Your task to perform on an android device: Go to CNN.com Image 0: 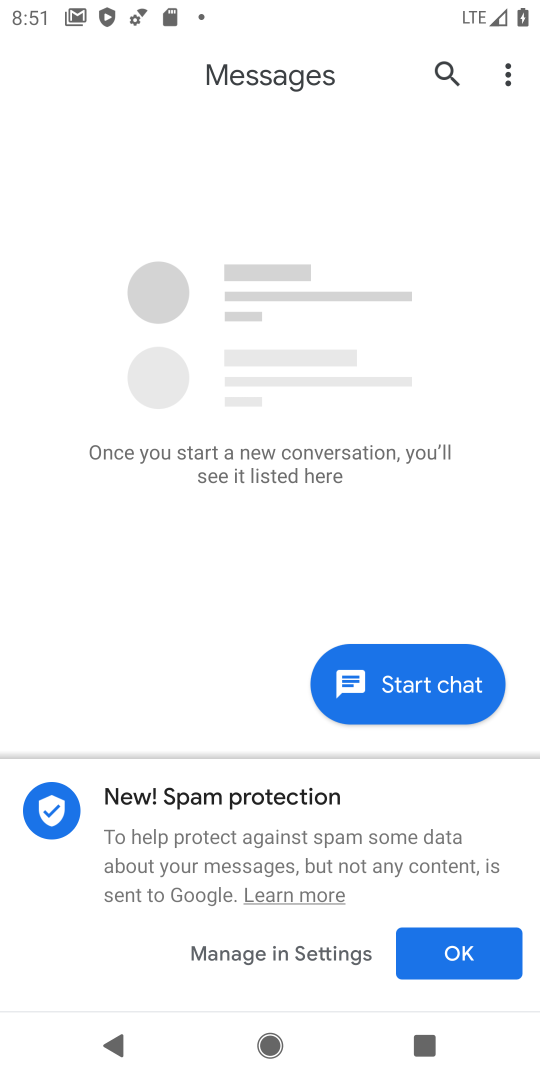
Step 0: press home button
Your task to perform on an android device: Go to CNN.com Image 1: 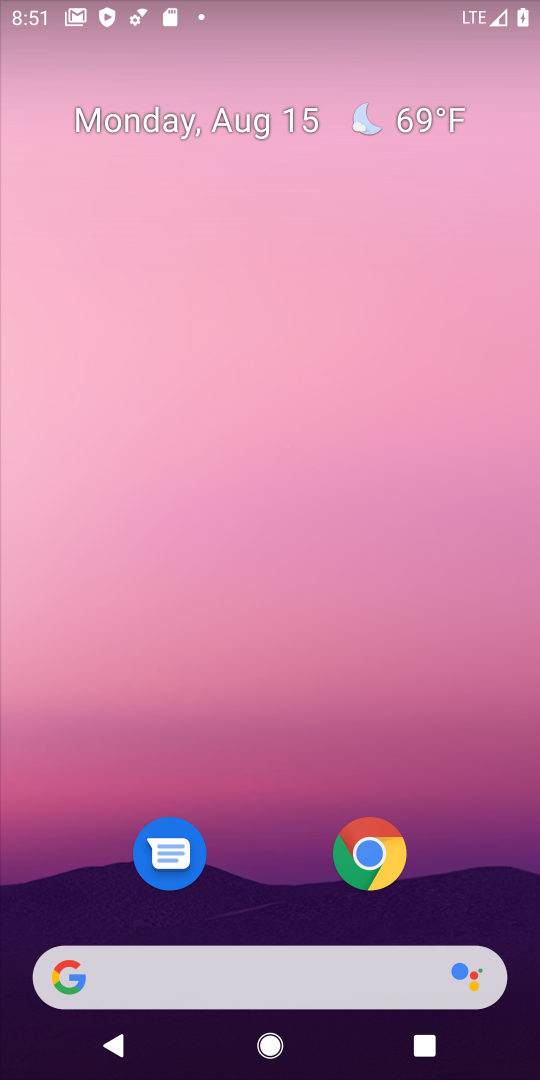
Step 1: drag from (303, 460) to (399, 4)
Your task to perform on an android device: Go to CNN.com Image 2: 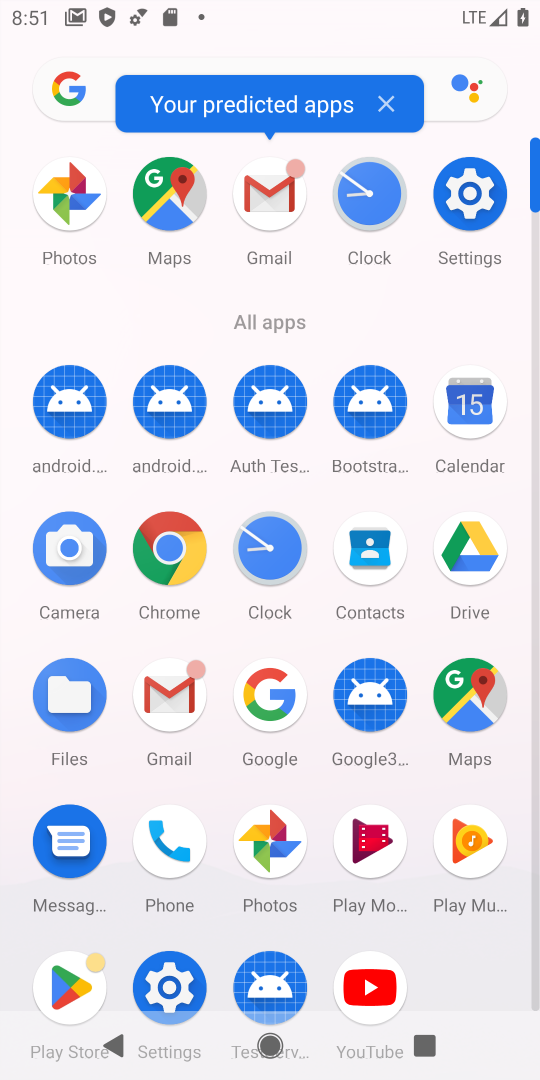
Step 2: click (169, 528)
Your task to perform on an android device: Go to CNN.com Image 3: 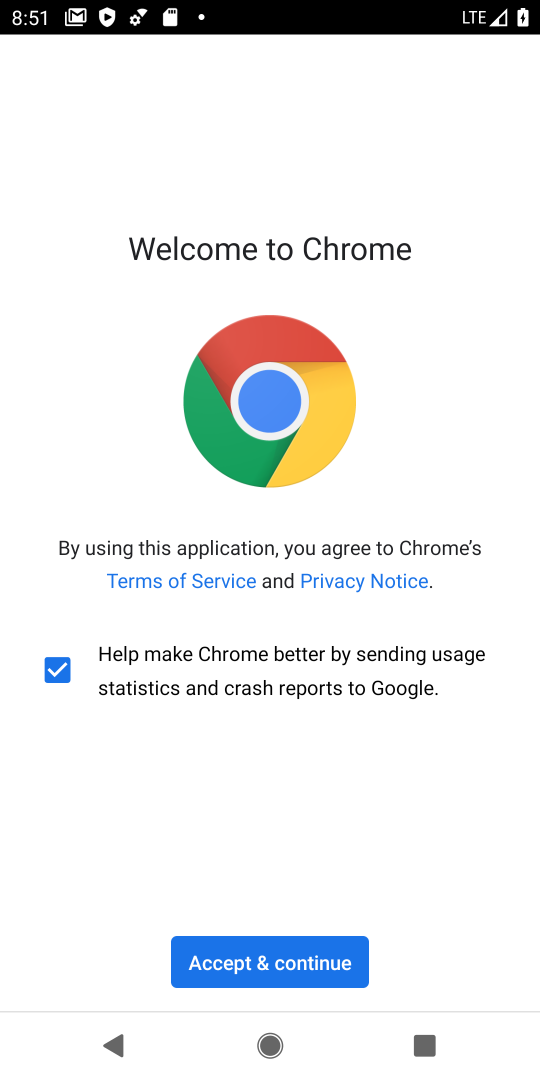
Step 3: click (313, 951)
Your task to perform on an android device: Go to CNN.com Image 4: 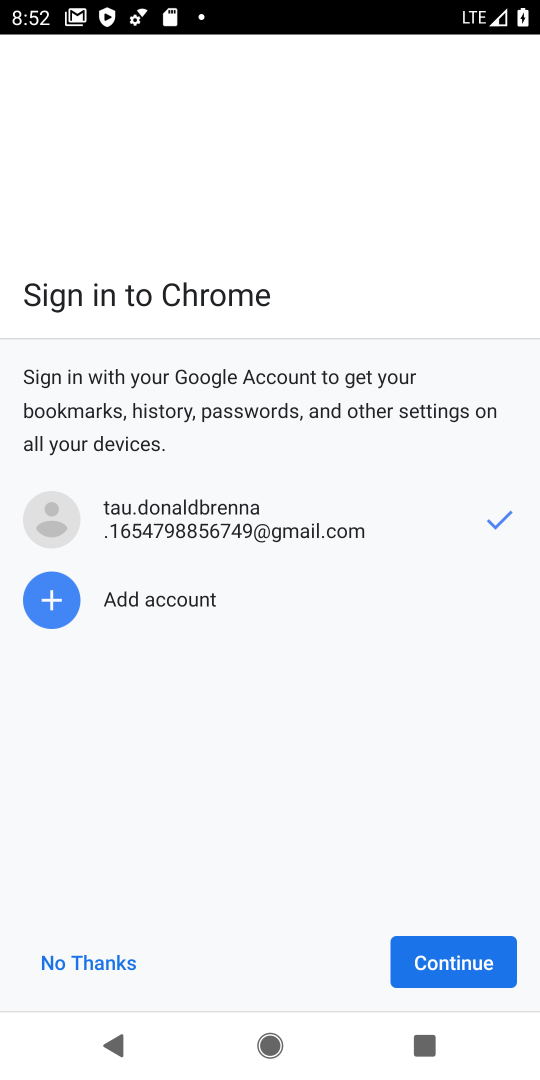
Step 4: click (436, 949)
Your task to perform on an android device: Go to CNN.com Image 5: 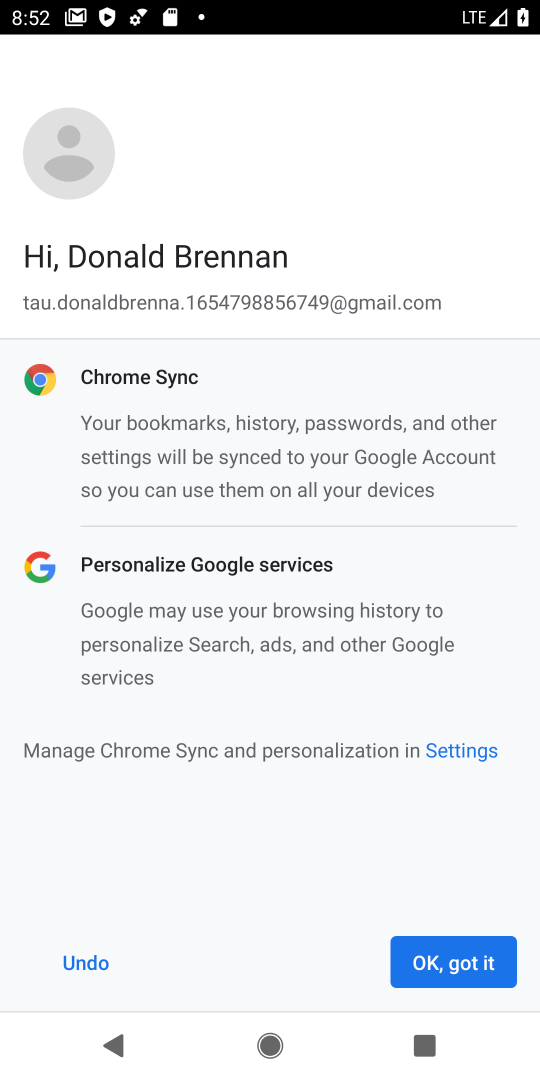
Step 5: click (436, 949)
Your task to perform on an android device: Go to CNN.com Image 6: 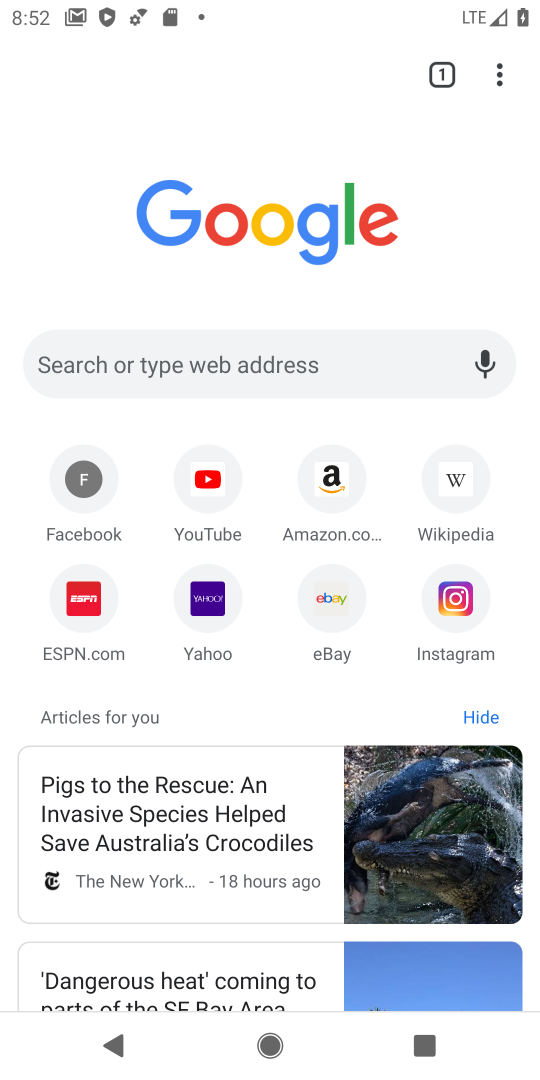
Step 6: click (240, 368)
Your task to perform on an android device: Go to CNN.com Image 7: 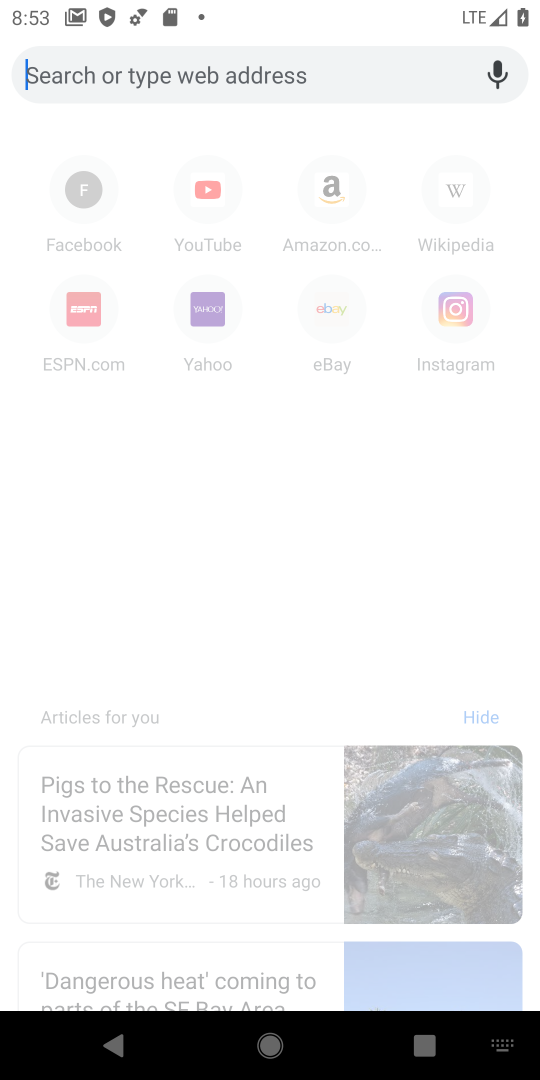
Step 7: type "CNN.com"
Your task to perform on an android device: Go to CNN.com Image 8: 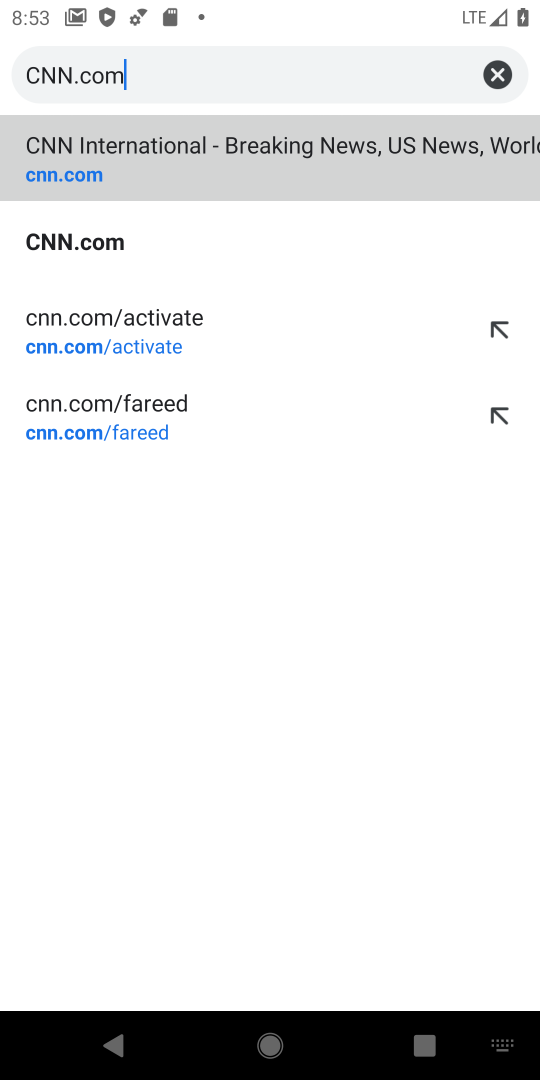
Step 8: click (77, 175)
Your task to perform on an android device: Go to CNN.com Image 9: 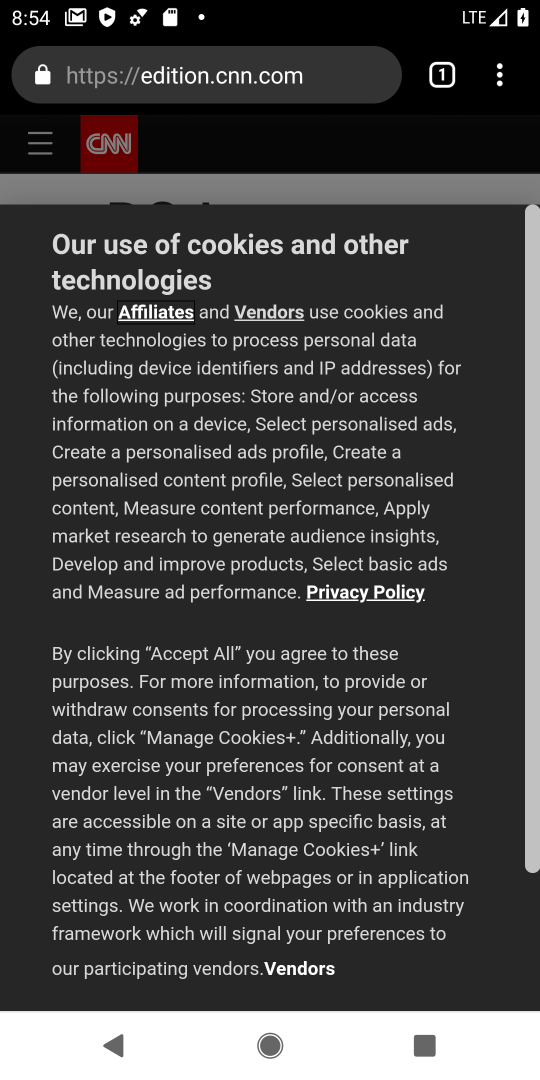
Step 9: task complete